Your task to perform on an android device: open chrome and create a bookmark for the current page Image 0: 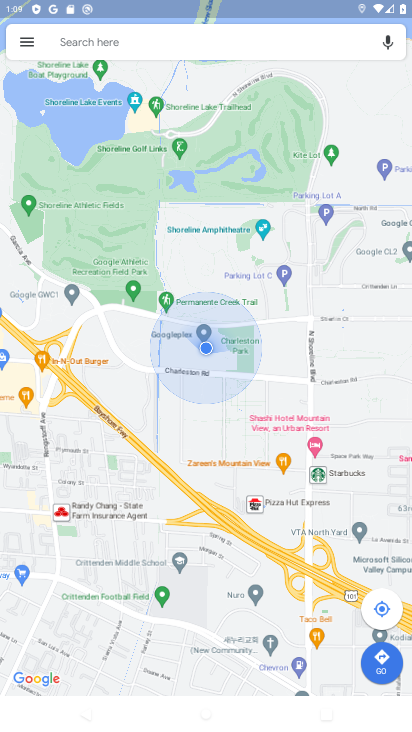
Step 0: press home button
Your task to perform on an android device: open chrome and create a bookmark for the current page Image 1: 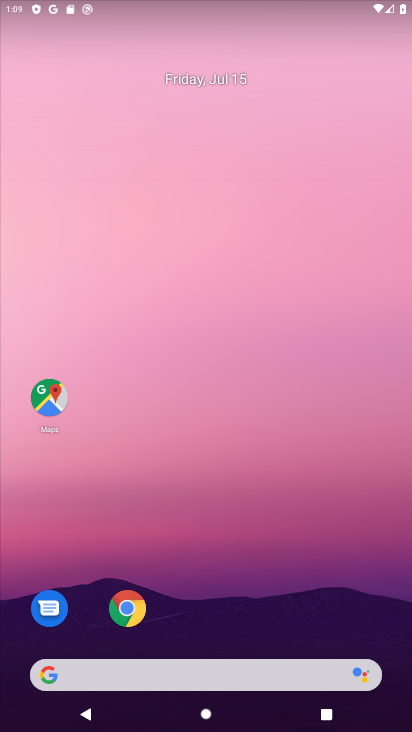
Step 1: click (132, 589)
Your task to perform on an android device: open chrome and create a bookmark for the current page Image 2: 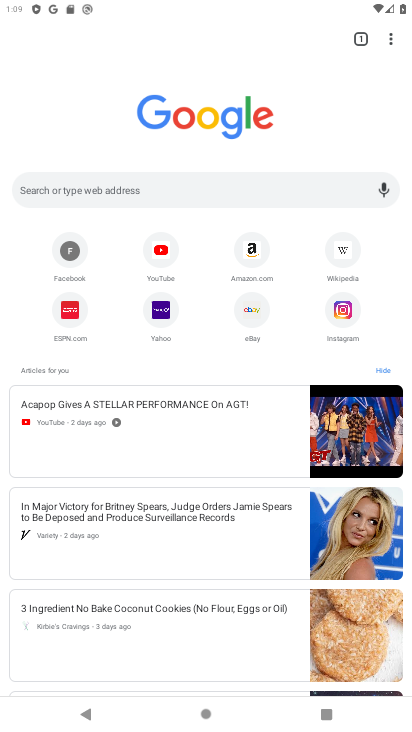
Step 2: click (393, 34)
Your task to perform on an android device: open chrome and create a bookmark for the current page Image 3: 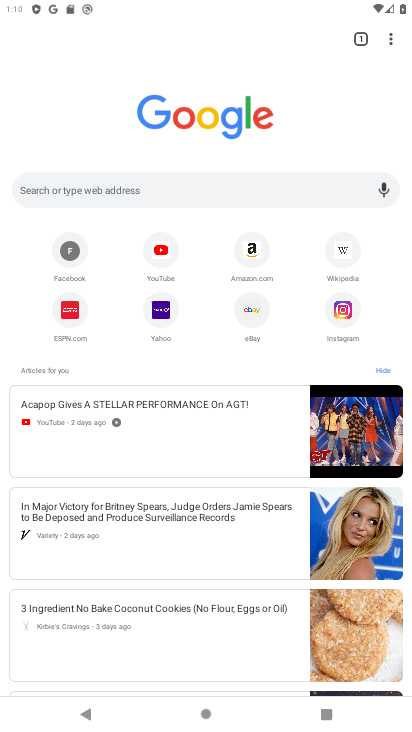
Step 3: click (396, 35)
Your task to perform on an android device: open chrome and create a bookmark for the current page Image 4: 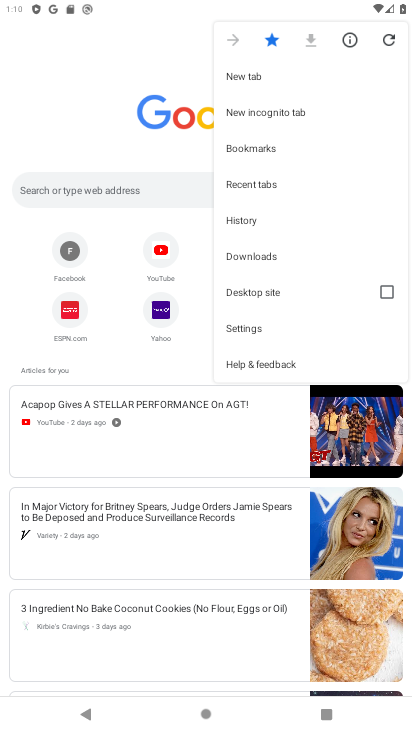
Step 4: task complete